Your task to perform on an android device: Go to display settings Image 0: 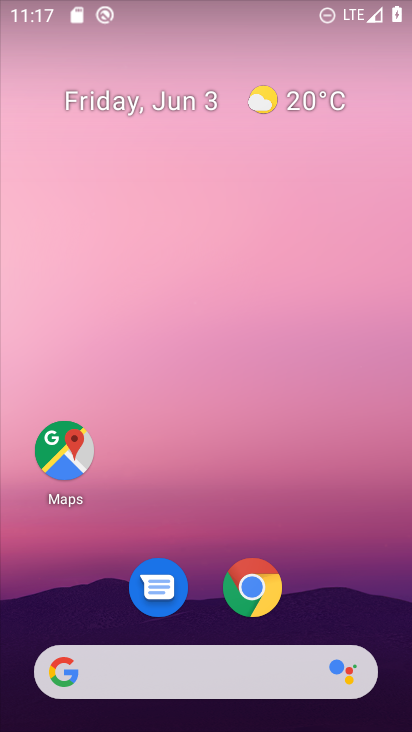
Step 0: drag from (358, 493) to (145, 5)
Your task to perform on an android device: Go to display settings Image 1: 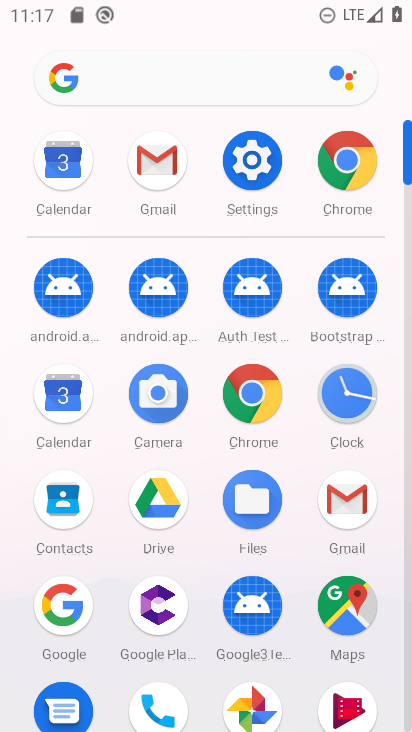
Step 1: click (246, 166)
Your task to perform on an android device: Go to display settings Image 2: 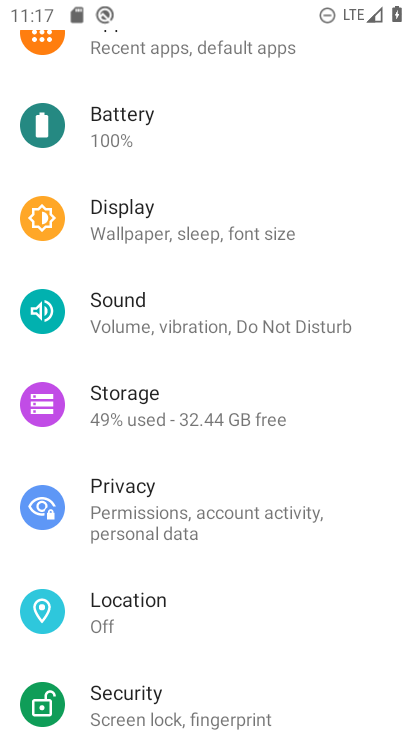
Step 2: click (166, 232)
Your task to perform on an android device: Go to display settings Image 3: 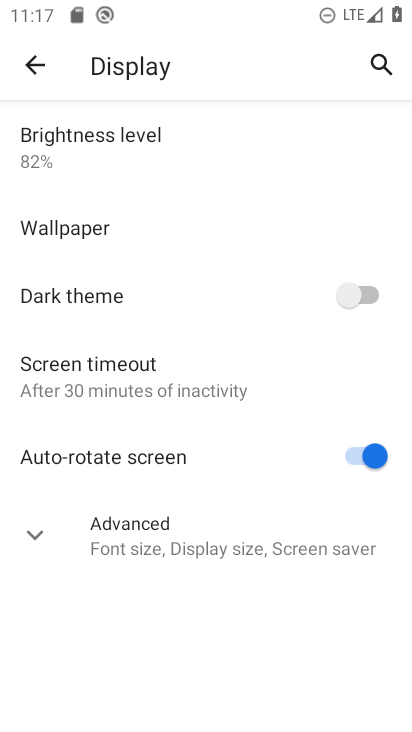
Step 3: task complete